Your task to perform on an android device: search for starred emails in the gmail app Image 0: 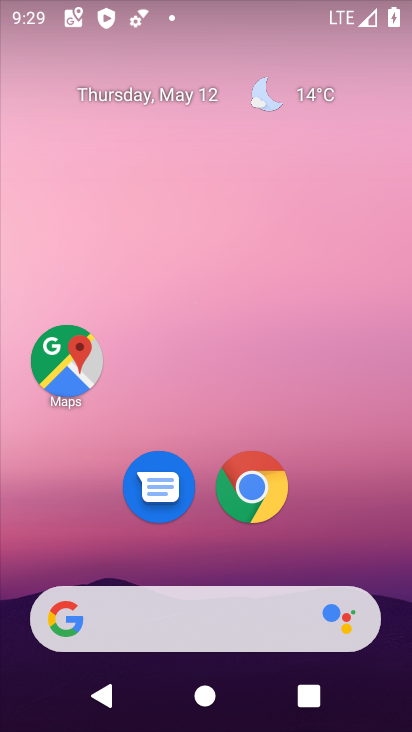
Step 0: drag from (14, 681) to (269, 257)
Your task to perform on an android device: search for starred emails in the gmail app Image 1: 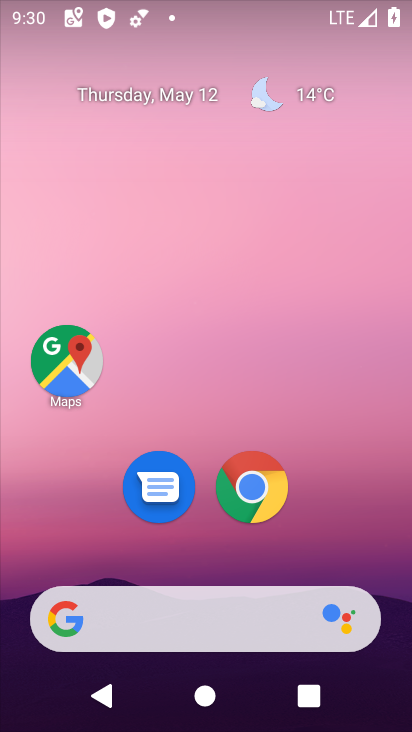
Step 1: drag from (88, 622) to (351, 92)
Your task to perform on an android device: search for starred emails in the gmail app Image 2: 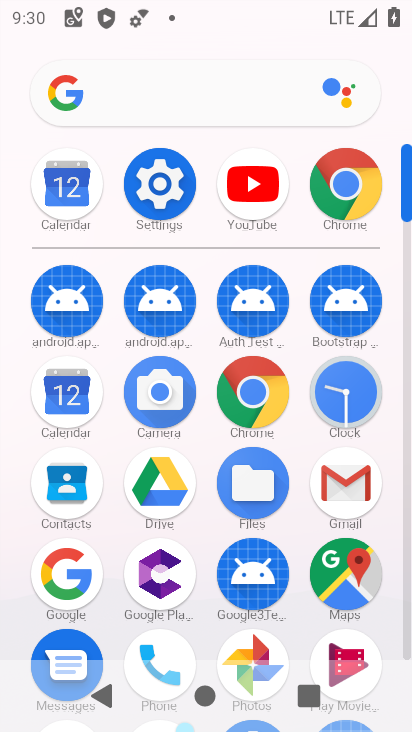
Step 2: click (335, 489)
Your task to perform on an android device: search for starred emails in the gmail app Image 3: 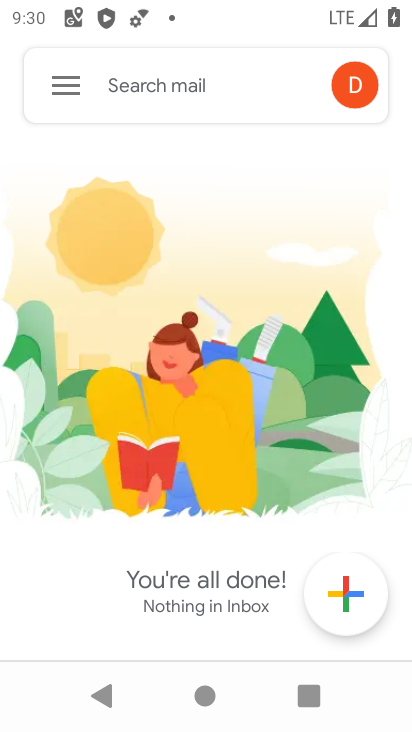
Step 3: click (50, 93)
Your task to perform on an android device: search for starred emails in the gmail app Image 4: 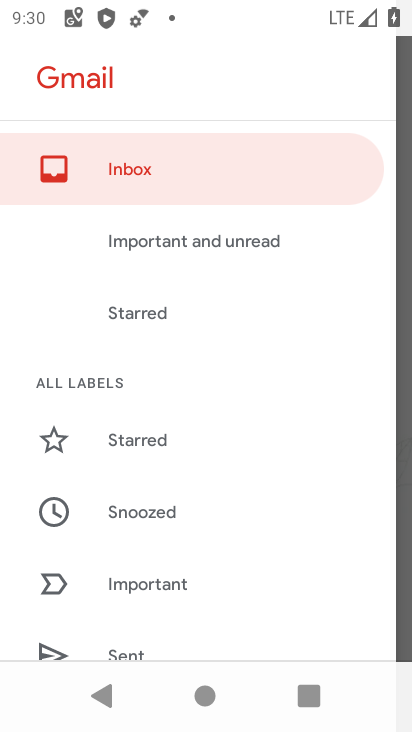
Step 4: click (97, 430)
Your task to perform on an android device: search for starred emails in the gmail app Image 5: 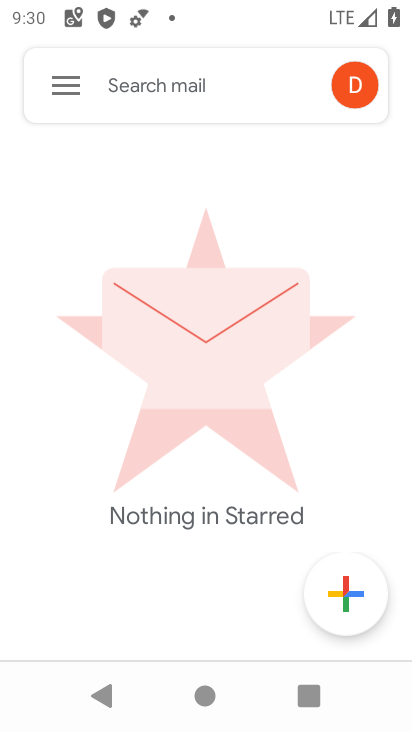
Step 5: task complete